Your task to perform on an android device: Open notification settings Image 0: 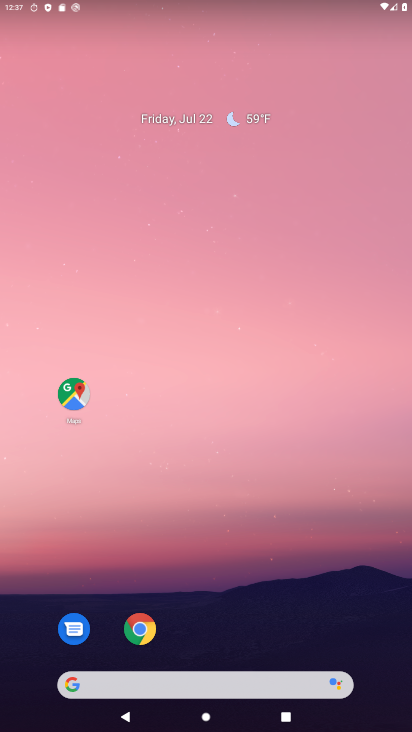
Step 0: drag from (293, 695) to (277, 181)
Your task to perform on an android device: Open notification settings Image 1: 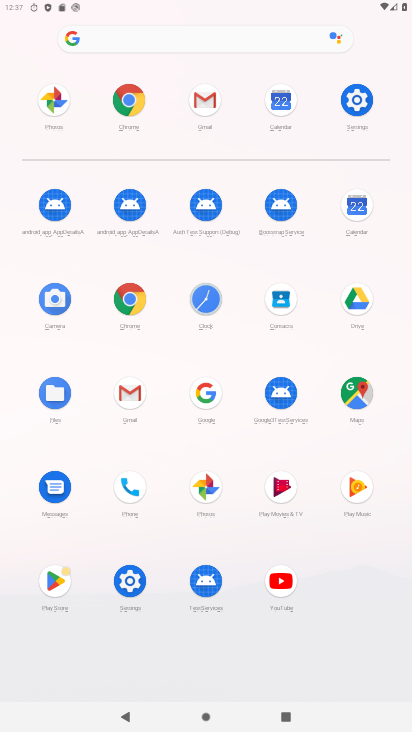
Step 1: click (354, 103)
Your task to perform on an android device: Open notification settings Image 2: 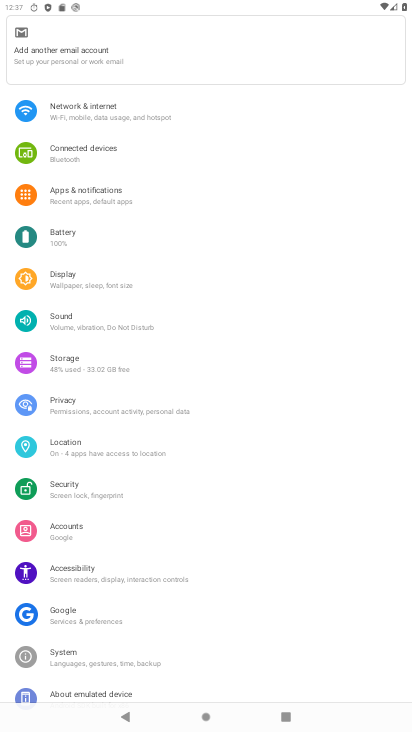
Step 2: drag from (244, 156) to (202, 663)
Your task to perform on an android device: Open notification settings Image 3: 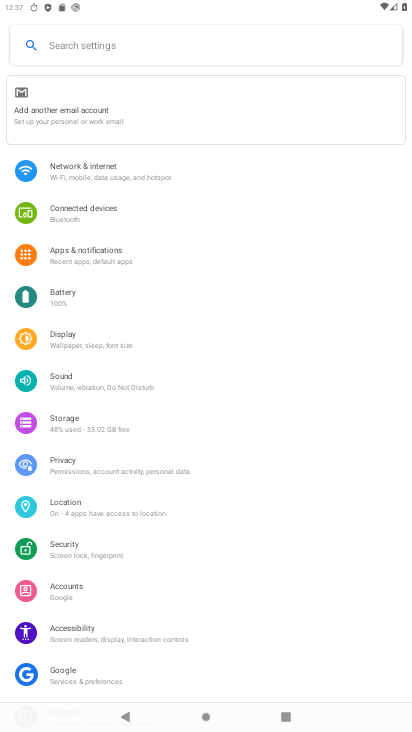
Step 3: click (110, 260)
Your task to perform on an android device: Open notification settings Image 4: 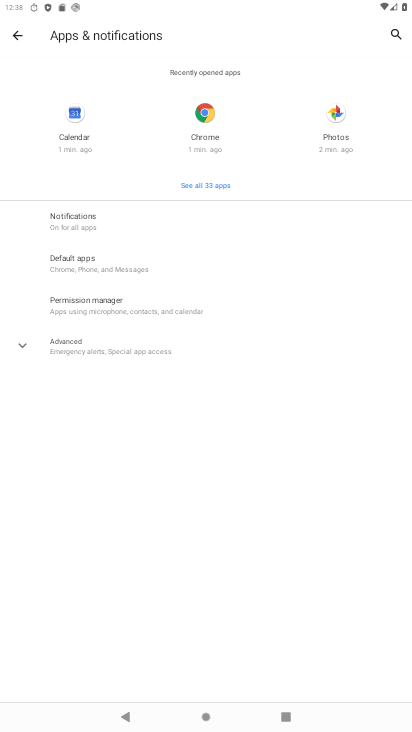
Step 4: click (93, 215)
Your task to perform on an android device: Open notification settings Image 5: 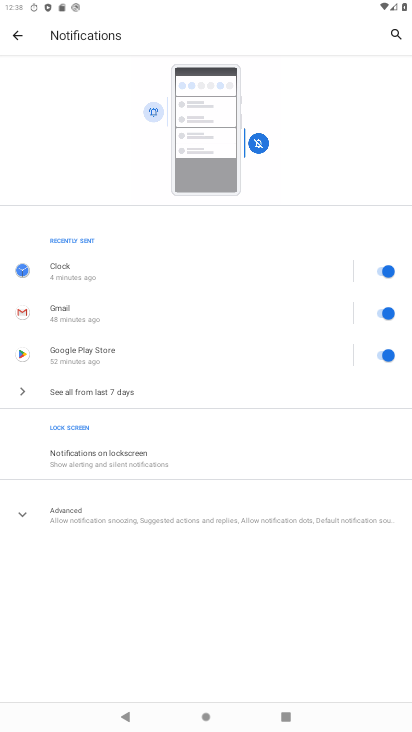
Step 5: task complete